Your task to perform on an android device: Open Google Maps and go to "Timeline" Image 0: 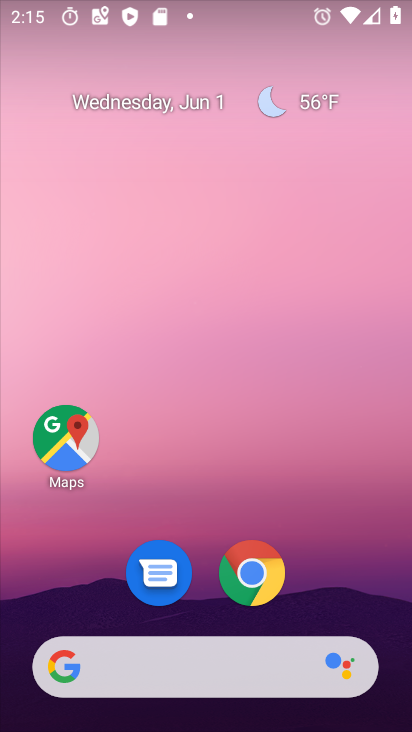
Step 0: drag from (344, 494) to (265, 34)
Your task to perform on an android device: Open Google Maps and go to "Timeline" Image 1: 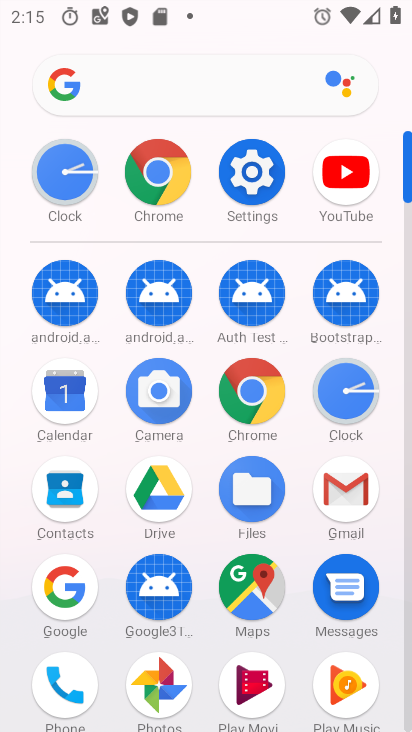
Step 1: click (249, 601)
Your task to perform on an android device: Open Google Maps and go to "Timeline" Image 2: 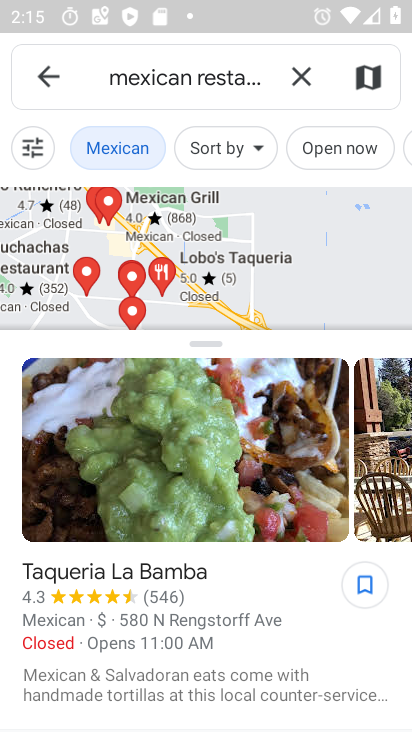
Step 2: click (54, 82)
Your task to perform on an android device: Open Google Maps and go to "Timeline" Image 3: 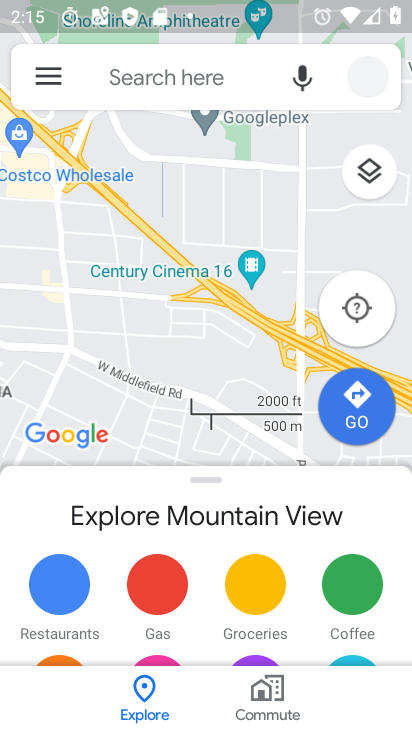
Step 3: click (50, 86)
Your task to perform on an android device: Open Google Maps and go to "Timeline" Image 4: 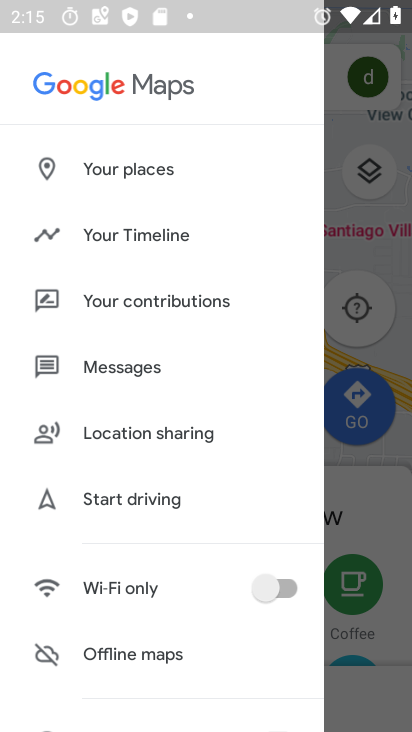
Step 4: click (134, 242)
Your task to perform on an android device: Open Google Maps and go to "Timeline" Image 5: 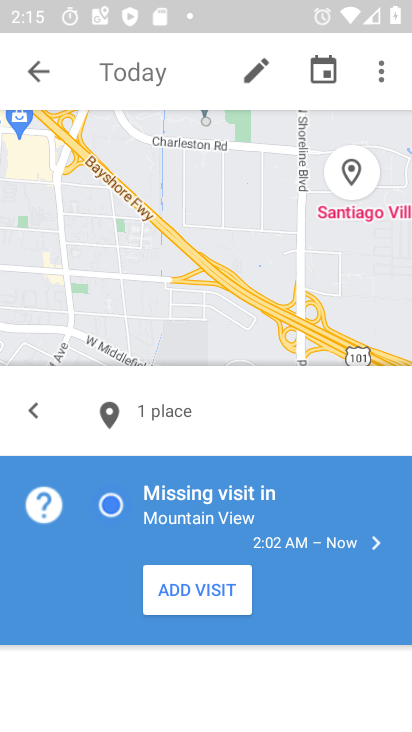
Step 5: task complete